Your task to perform on an android device: open app "PlayWell" (install if not already installed), go to login, and select forgot password Image 0: 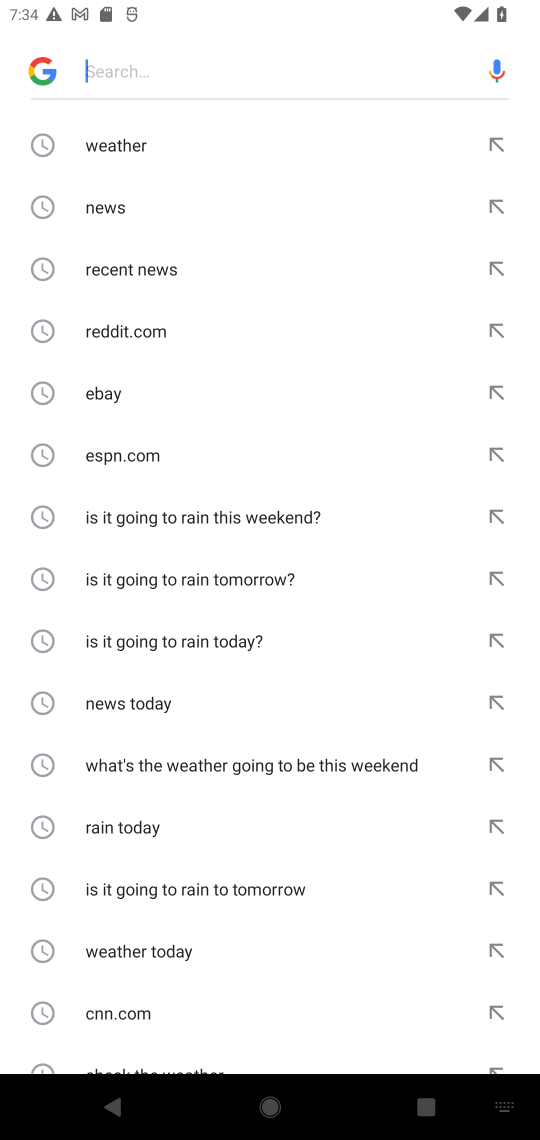
Step 0: press back button
Your task to perform on an android device: open app "PlayWell" (install if not already installed), go to login, and select forgot password Image 1: 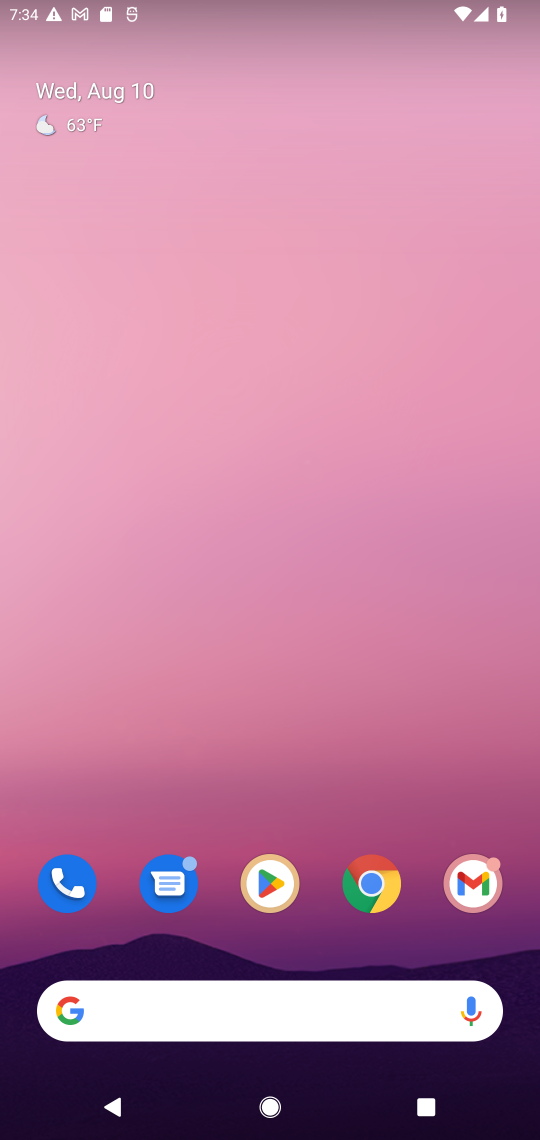
Step 1: click (282, 868)
Your task to perform on an android device: open app "PlayWell" (install if not already installed), go to login, and select forgot password Image 2: 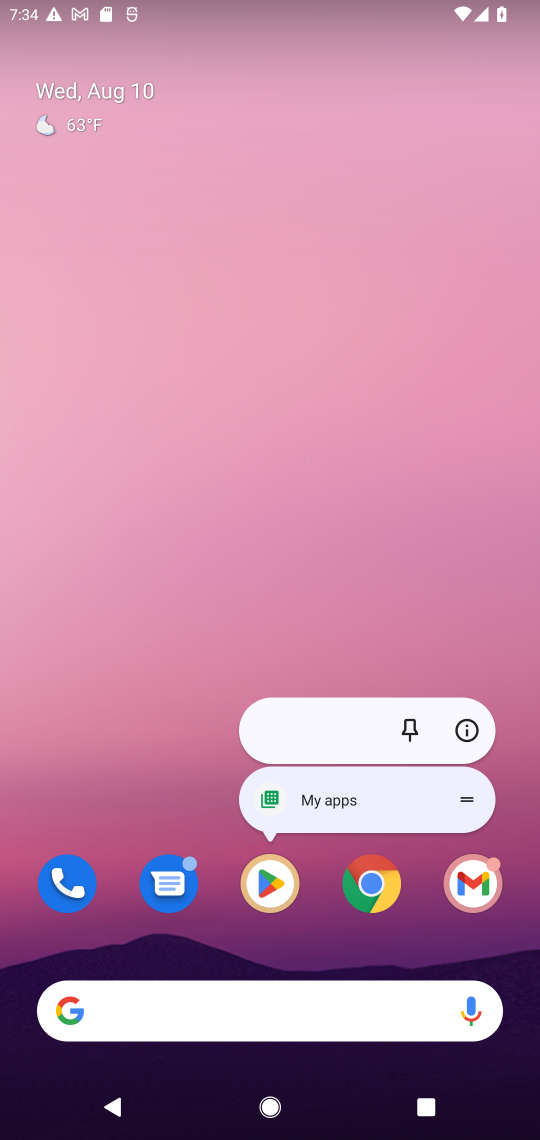
Step 2: click (250, 895)
Your task to perform on an android device: open app "PlayWell" (install if not already installed), go to login, and select forgot password Image 3: 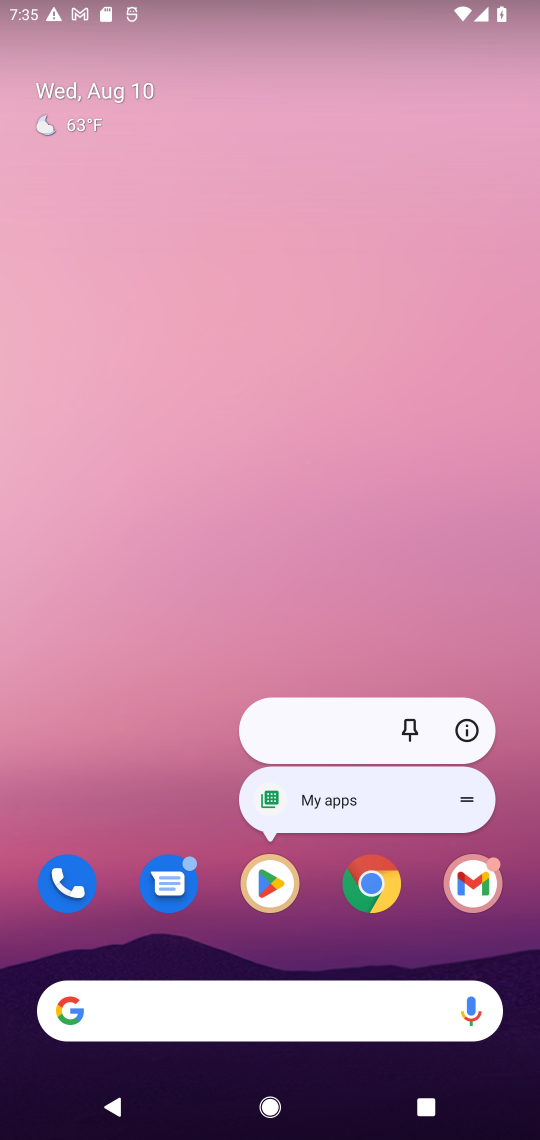
Step 3: click (255, 895)
Your task to perform on an android device: open app "PlayWell" (install if not already installed), go to login, and select forgot password Image 4: 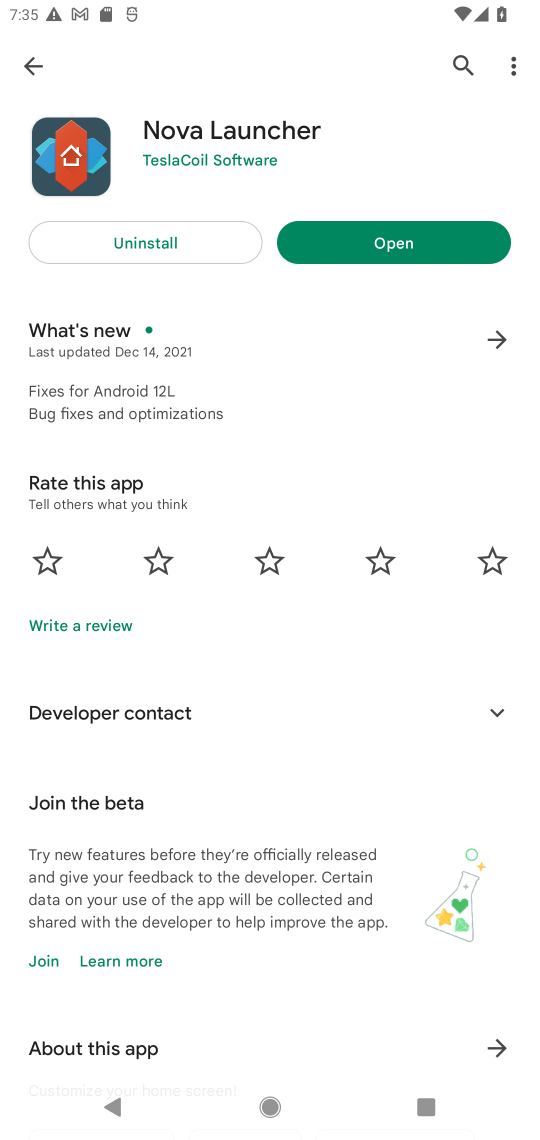
Step 4: click (475, 64)
Your task to perform on an android device: open app "PlayWell" (install if not already installed), go to login, and select forgot password Image 5: 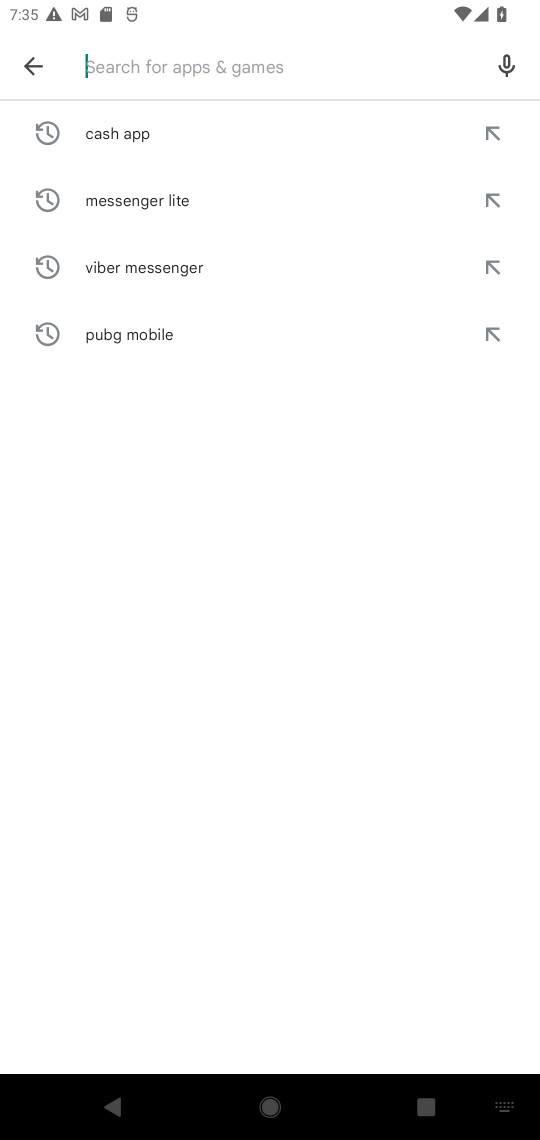
Step 5: type "PlayWell"
Your task to perform on an android device: open app "PlayWell" (install if not already installed), go to login, and select forgot password Image 6: 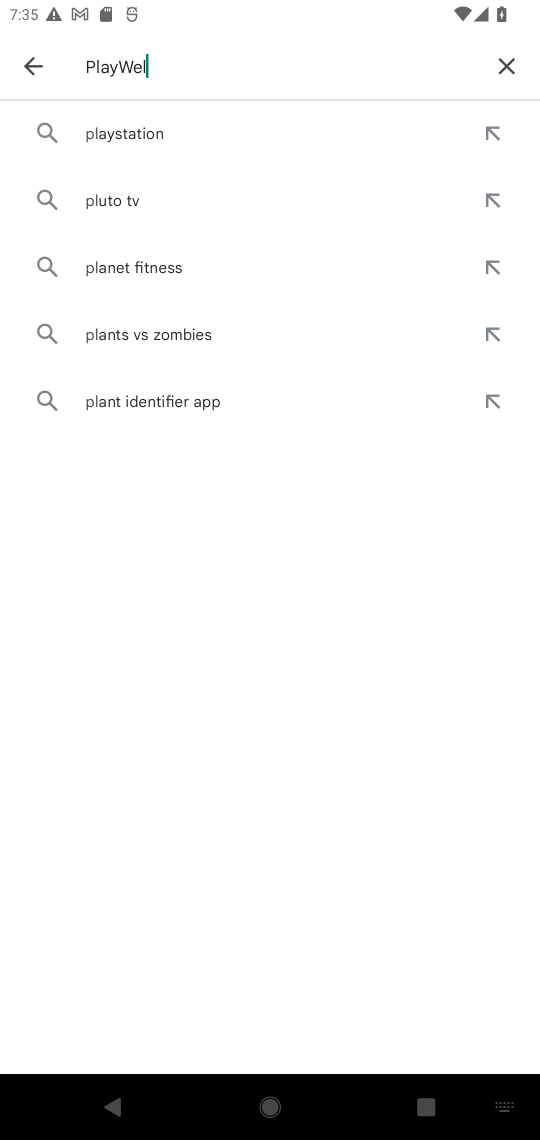
Step 6: type ""
Your task to perform on an android device: open app "PlayWell" (install if not already installed), go to login, and select forgot password Image 7: 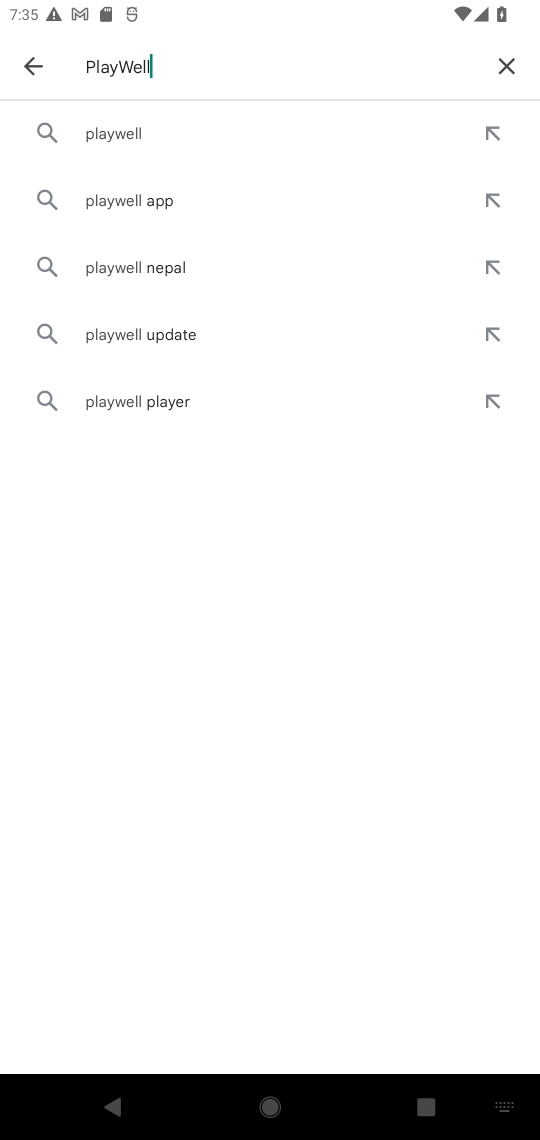
Step 7: click (158, 139)
Your task to perform on an android device: open app "PlayWell" (install if not already installed), go to login, and select forgot password Image 8: 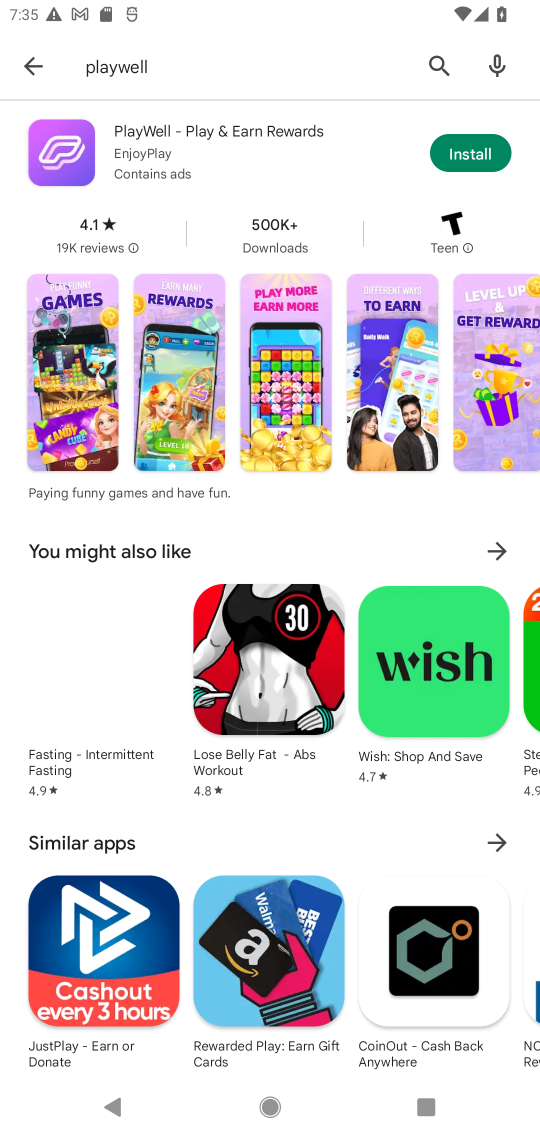
Step 8: click (461, 150)
Your task to perform on an android device: open app "PlayWell" (install if not already installed), go to login, and select forgot password Image 9: 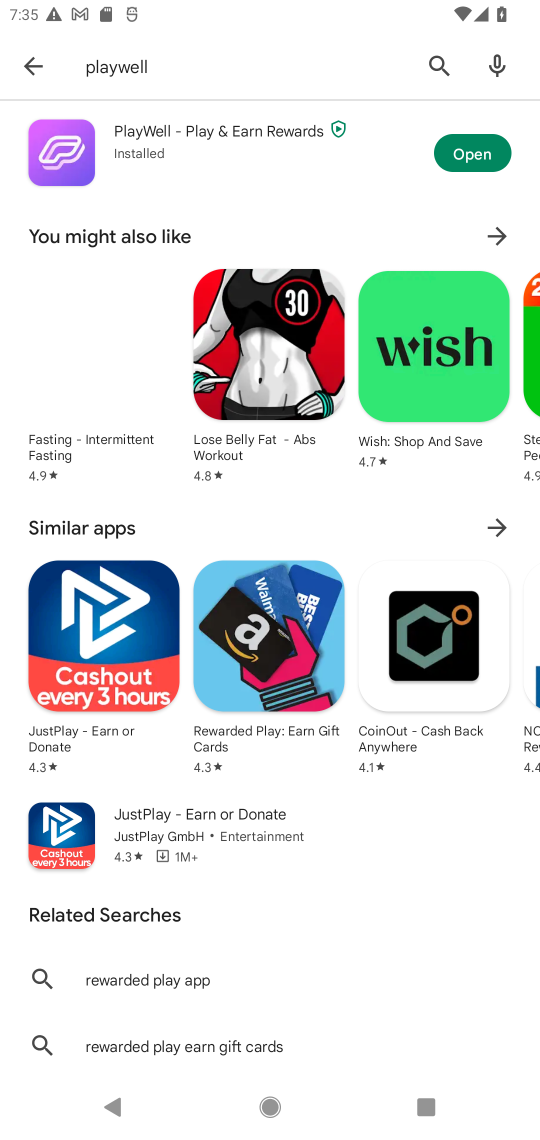
Step 9: click (478, 146)
Your task to perform on an android device: open app "PlayWell" (install if not already installed), go to login, and select forgot password Image 10: 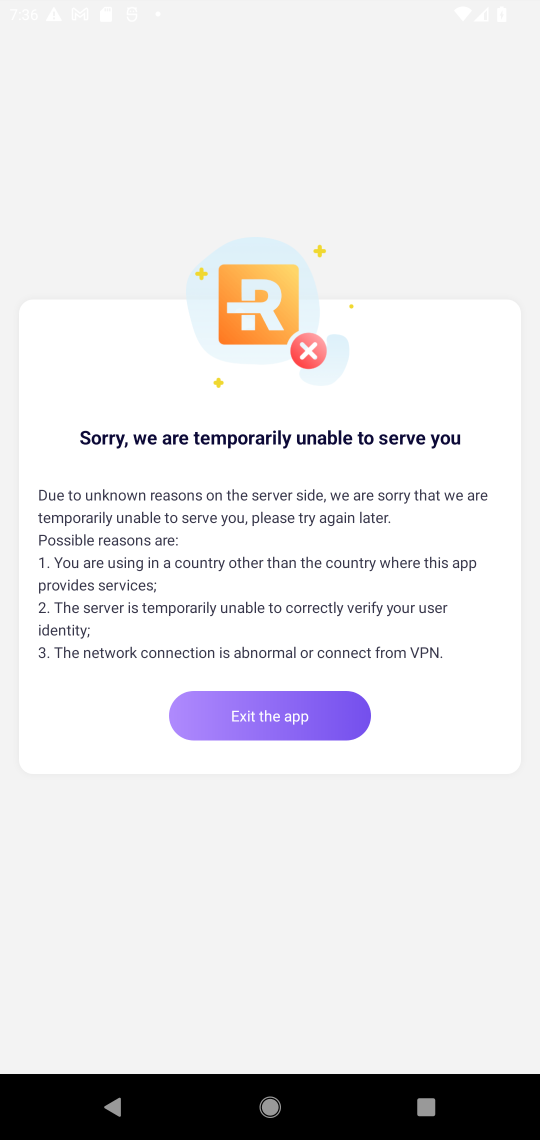
Step 10: task complete